Your task to perform on an android device: turn notification dots on Image 0: 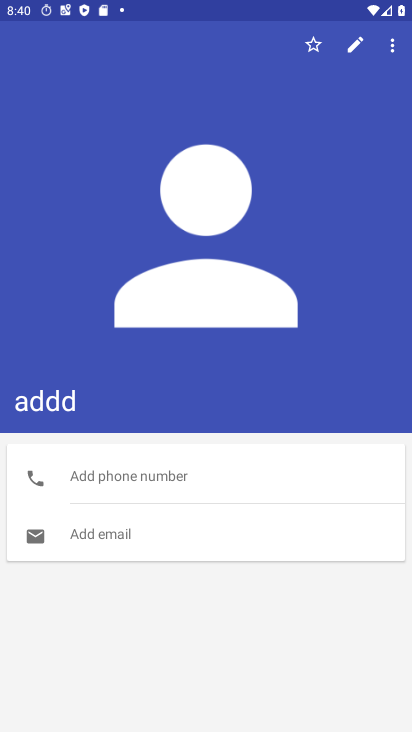
Step 0: click (403, 329)
Your task to perform on an android device: turn notification dots on Image 1: 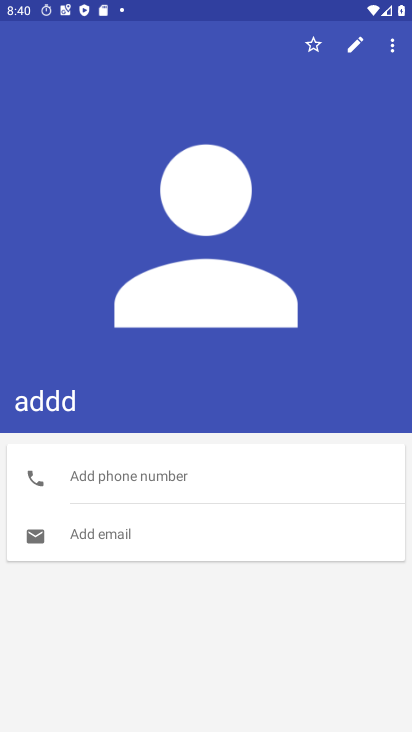
Step 1: press home button
Your task to perform on an android device: turn notification dots on Image 2: 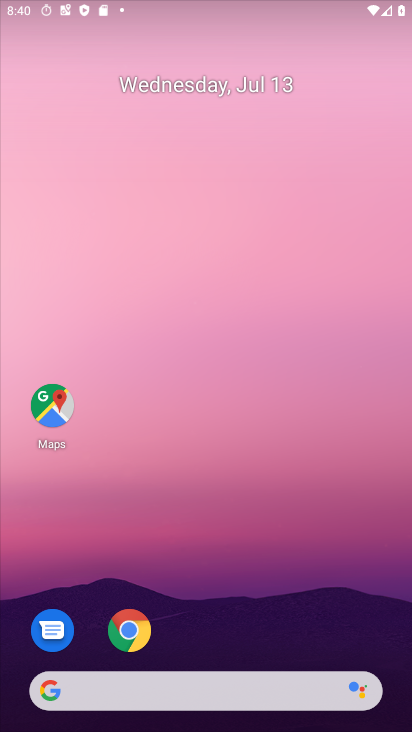
Step 2: drag from (183, 604) to (210, 203)
Your task to perform on an android device: turn notification dots on Image 3: 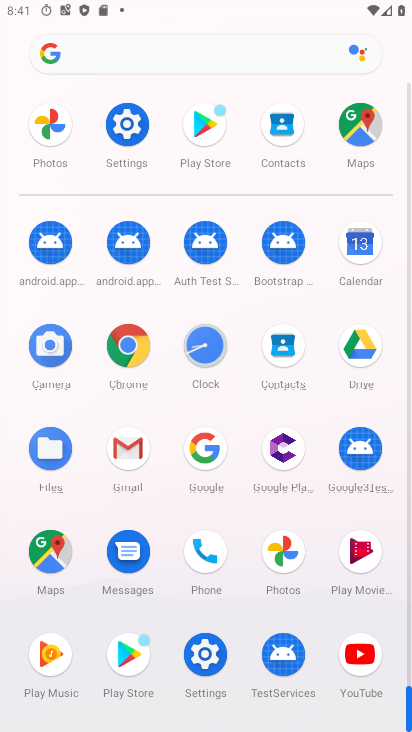
Step 3: click (202, 650)
Your task to perform on an android device: turn notification dots on Image 4: 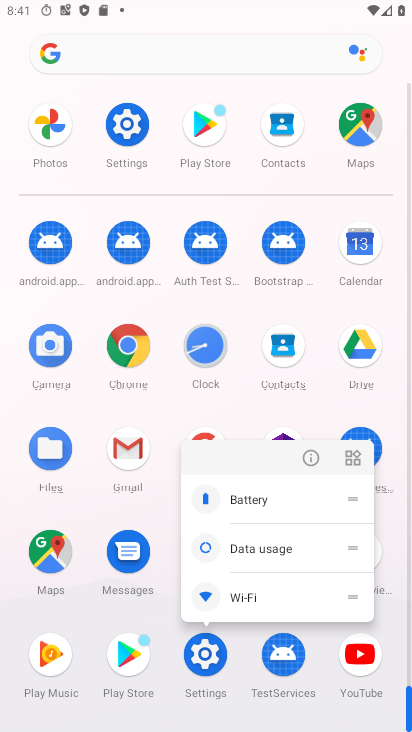
Step 4: click (310, 457)
Your task to perform on an android device: turn notification dots on Image 5: 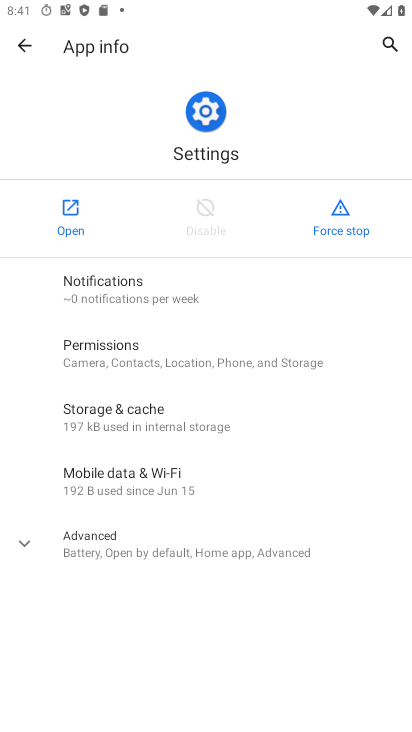
Step 5: click (71, 220)
Your task to perform on an android device: turn notification dots on Image 6: 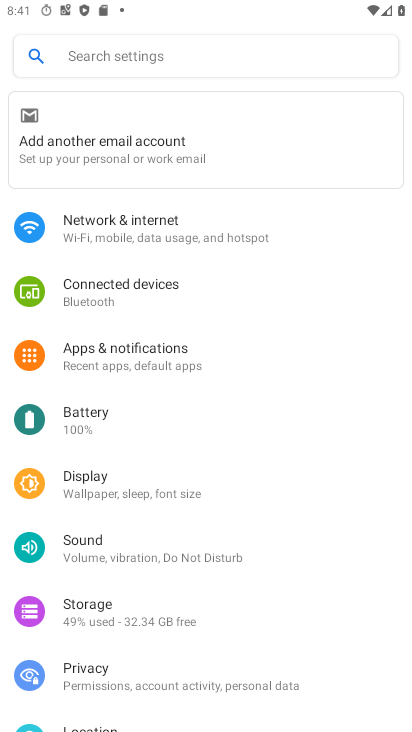
Step 6: click (138, 357)
Your task to perform on an android device: turn notification dots on Image 7: 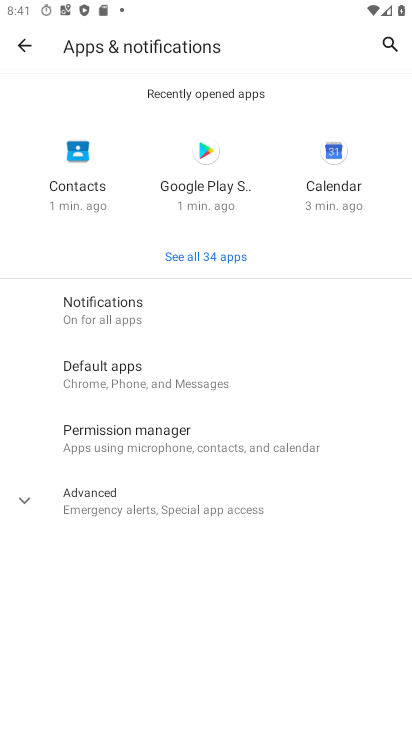
Step 7: click (110, 313)
Your task to perform on an android device: turn notification dots on Image 8: 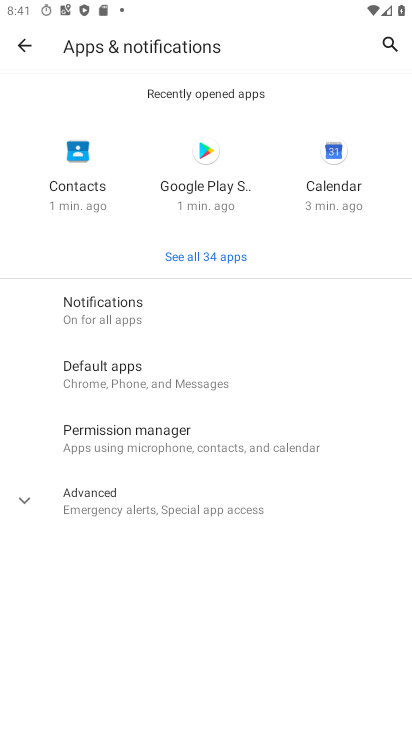
Step 8: drag from (215, 482) to (298, 4)
Your task to perform on an android device: turn notification dots on Image 9: 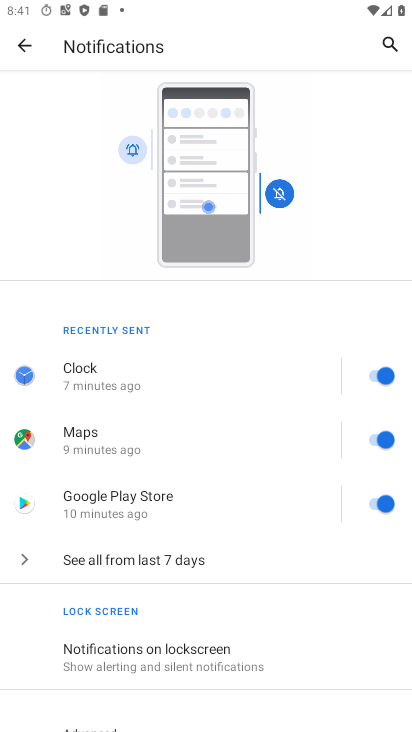
Step 9: drag from (143, 675) to (270, 163)
Your task to perform on an android device: turn notification dots on Image 10: 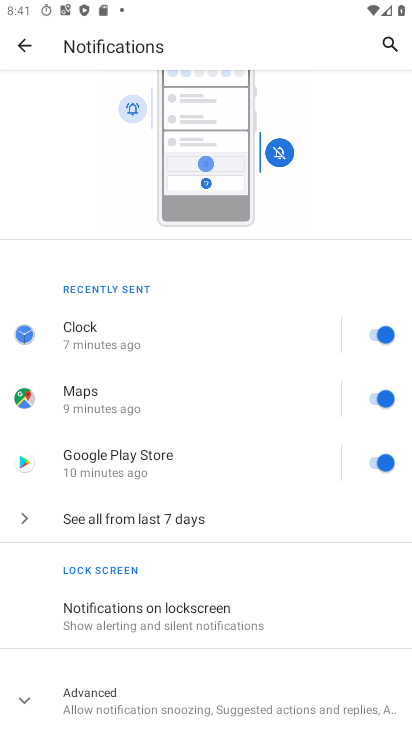
Step 10: click (110, 713)
Your task to perform on an android device: turn notification dots on Image 11: 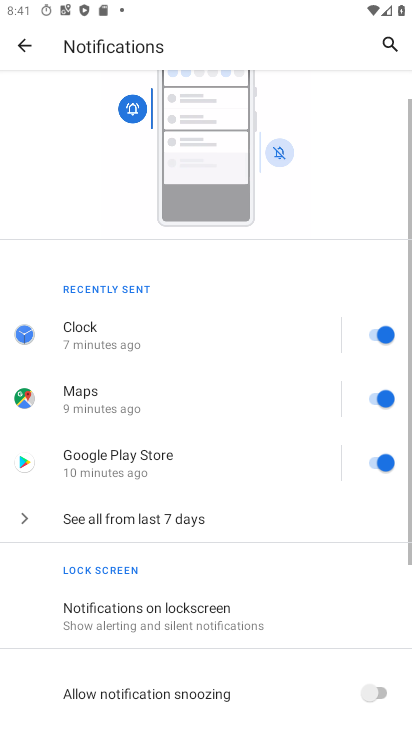
Step 11: task complete